Your task to perform on an android device: turn on the 12-hour format for clock Image 0: 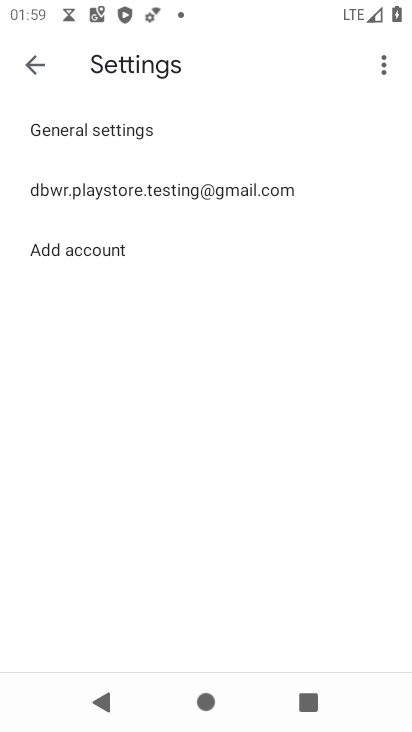
Step 0: press home button
Your task to perform on an android device: turn on the 12-hour format for clock Image 1: 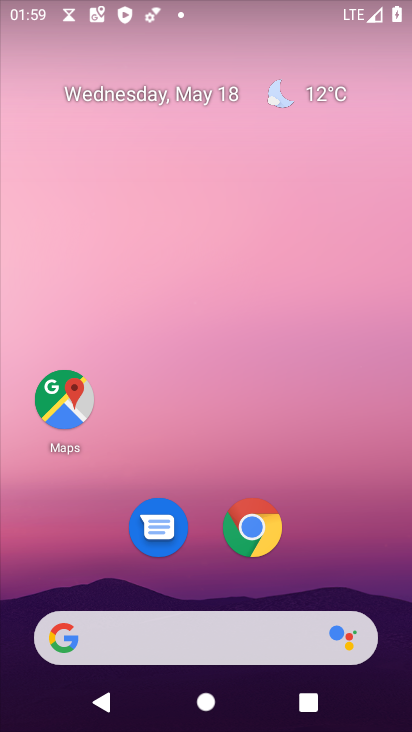
Step 1: drag from (305, 529) to (229, 87)
Your task to perform on an android device: turn on the 12-hour format for clock Image 2: 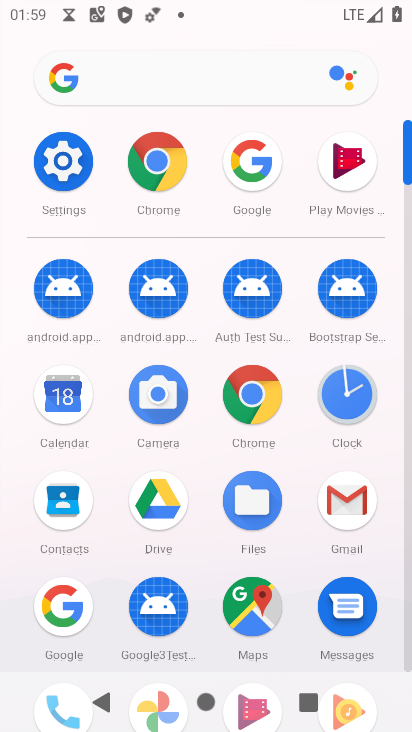
Step 2: click (353, 381)
Your task to perform on an android device: turn on the 12-hour format for clock Image 3: 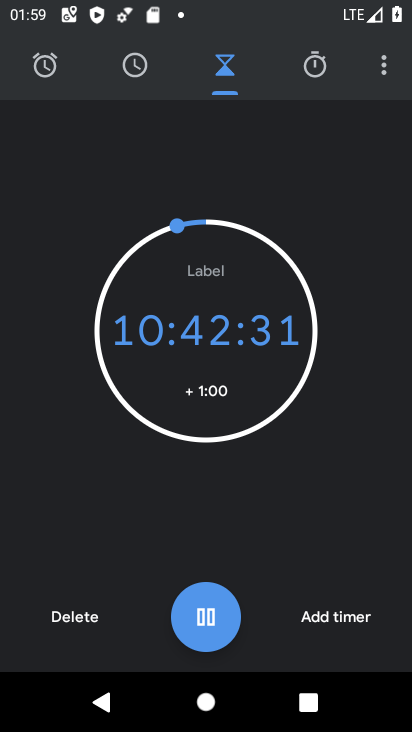
Step 3: click (377, 66)
Your task to perform on an android device: turn on the 12-hour format for clock Image 4: 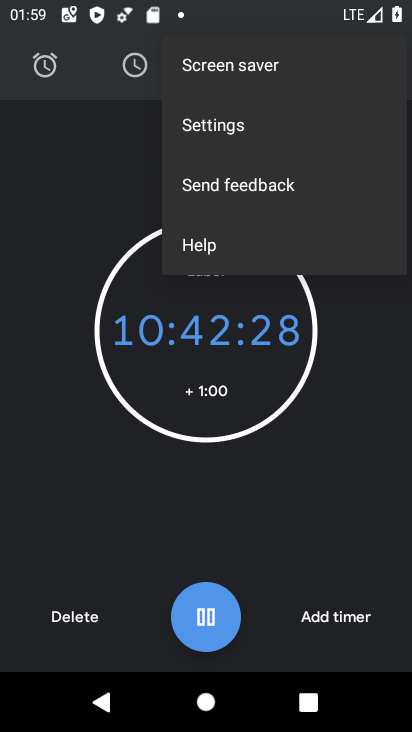
Step 4: click (279, 126)
Your task to perform on an android device: turn on the 12-hour format for clock Image 5: 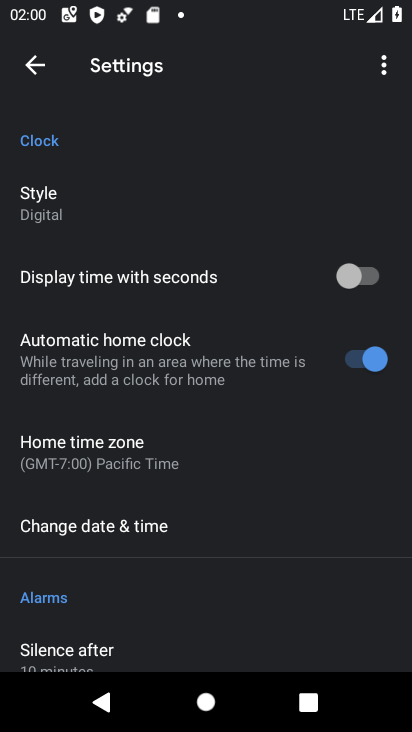
Step 5: click (128, 521)
Your task to perform on an android device: turn on the 12-hour format for clock Image 6: 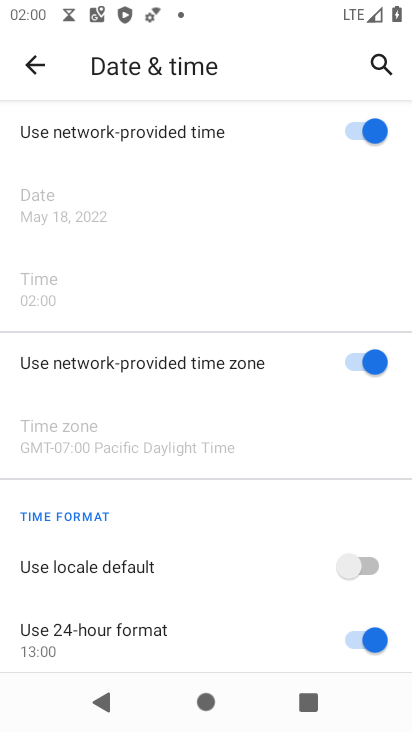
Step 6: click (360, 640)
Your task to perform on an android device: turn on the 12-hour format for clock Image 7: 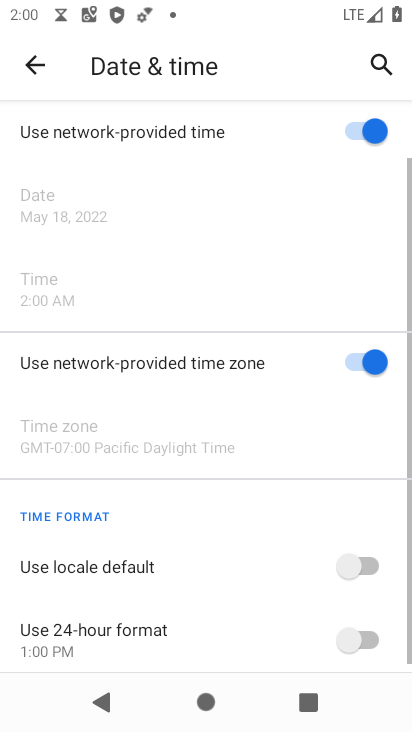
Step 7: click (356, 565)
Your task to perform on an android device: turn on the 12-hour format for clock Image 8: 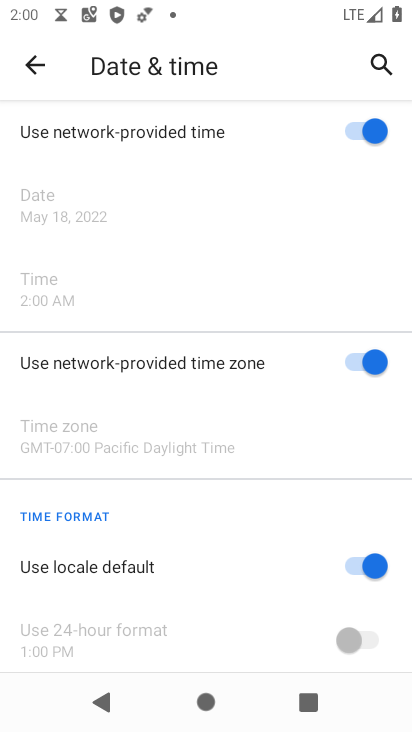
Step 8: task complete